Your task to perform on an android device: View the shopping cart on newegg. Search for logitech g502 on newegg, select the first entry, add it to the cart, then select checkout. Image 0: 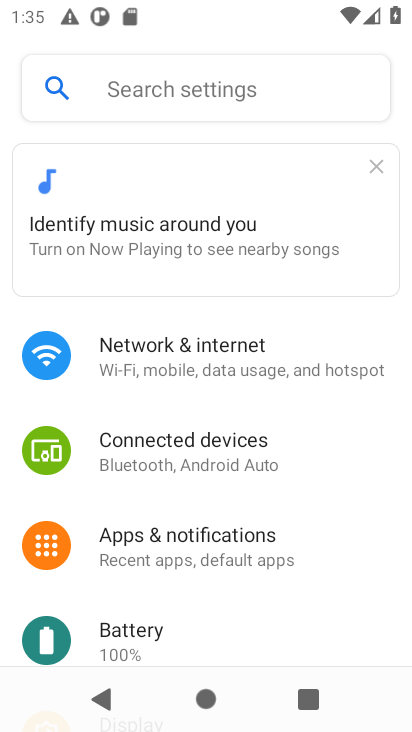
Step 0: press home button
Your task to perform on an android device: View the shopping cart on newegg. Search for logitech g502 on newegg, select the first entry, add it to the cart, then select checkout. Image 1: 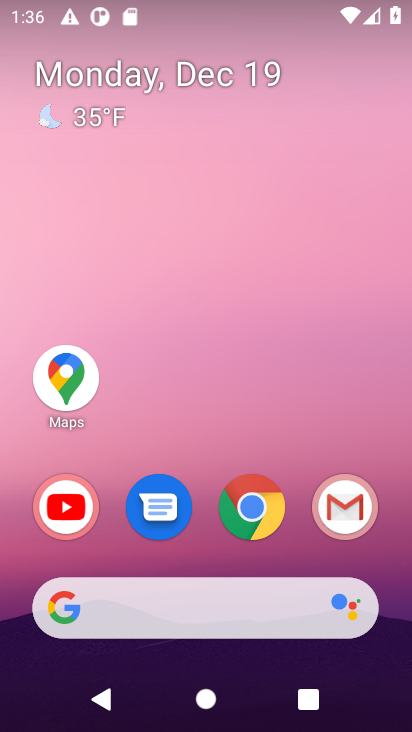
Step 1: click (253, 510)
Your task to perform on an android device: View the shopping cart on newegg. Search for logitech g502 on newegg, select the first entry, add it to the cart, then select checkout. Image 2: 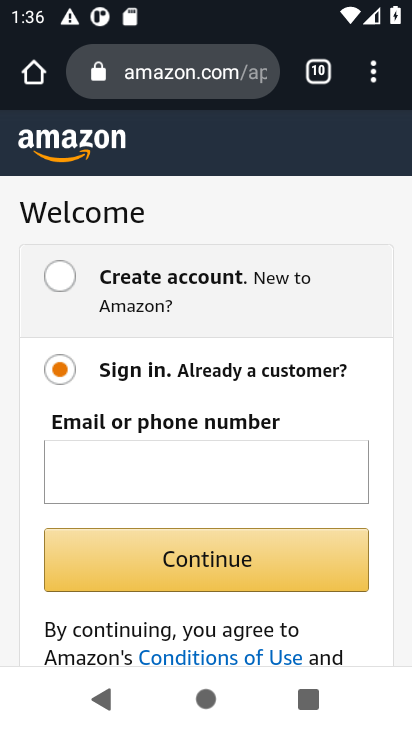
Step 2: click (149, 79)
Your task to perform on an android device: View the shopping cart on newegg. Search for logitech g502 on newegg, select the first entry, add it to the cart, then select checkout. Image 3: 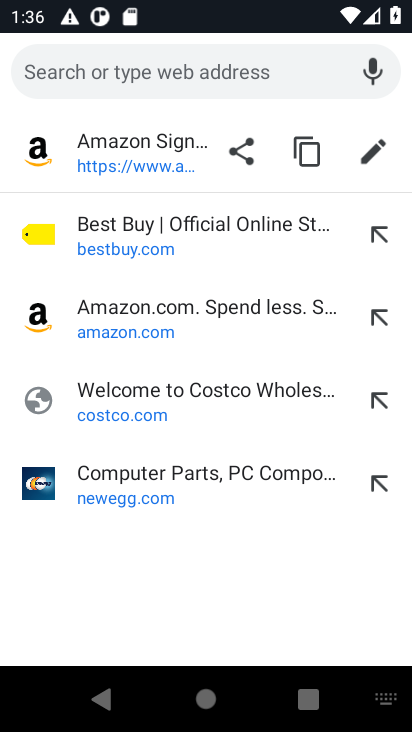
Step 3: click (124, 495)
Your task to perform on an android device: View the shopping cart on newegg. Search for logitech g502 on newegg, select the first entry, add it to the cart, then select checkout. Image 4: 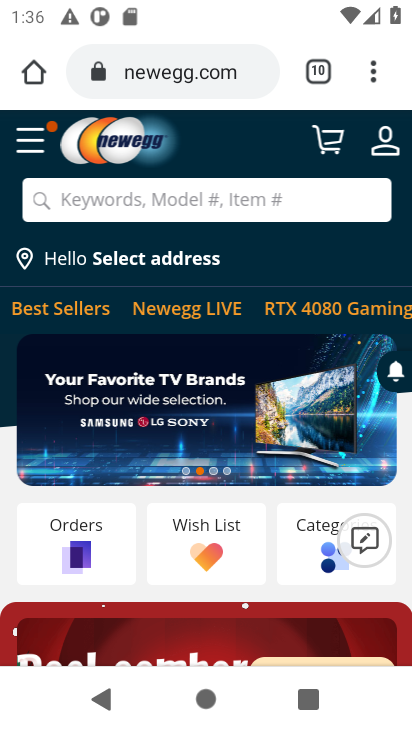
Step 4: click (333, 147)
Your task to perform on an android device: View the shopping cart on newegg. Search for logitech g502 on newegg, select the first entry, add it to the cart, then select checkout. Image 5: 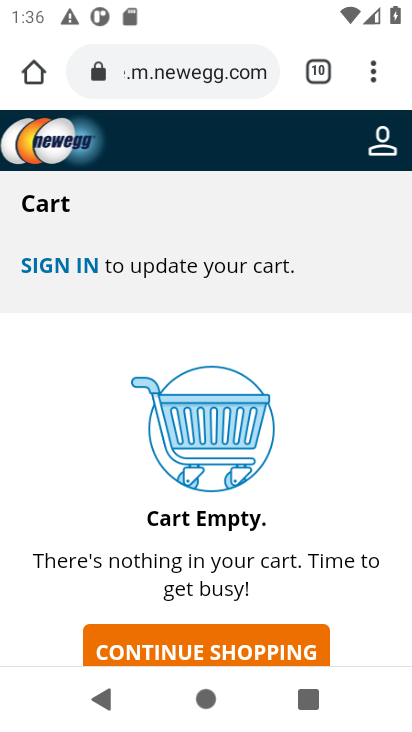
Step 5: drag from (231, 493) to (230, 380)
Your task to perform on an android device: View the shopping cart on newegg. Search for logitech g502 on newegg, select the first entry, add it to the cart, then select checkout. Image 6: 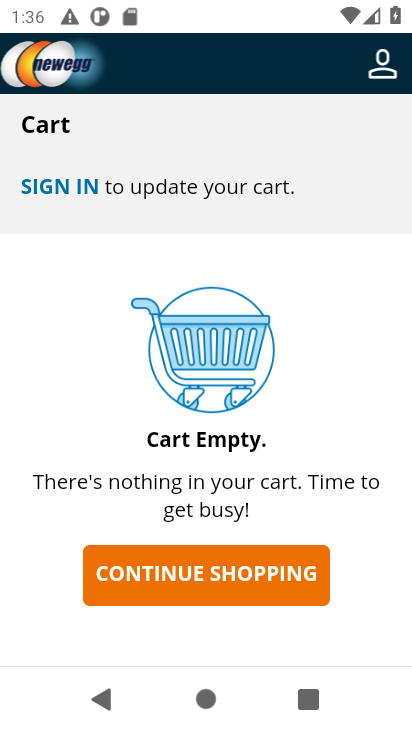
Step 6: drag from (242, 298) to (263, 489)
Your task to perform on an android device: View the shopping cart on newegg. Search for logitech g502 on newegg, select the first entry, add it to the cart, then select checkout. Image 7: 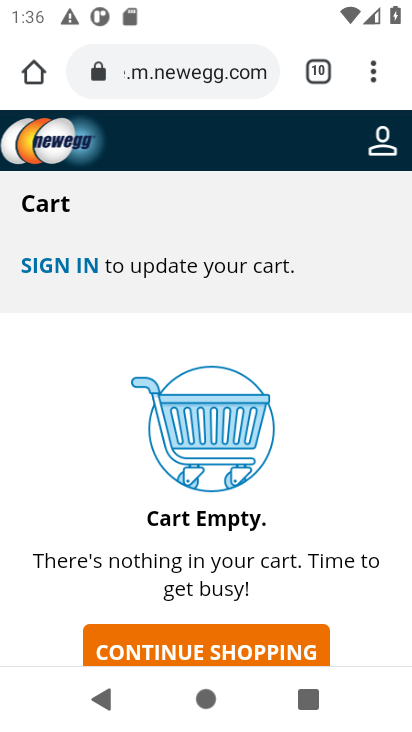
Step 7: click (213, 642)
Your task to perform on an android device: View the shopping cart on newegg. Search for logitech g502 on newegg, select the first entry, add it to the cart, then select checkout. Image 8: 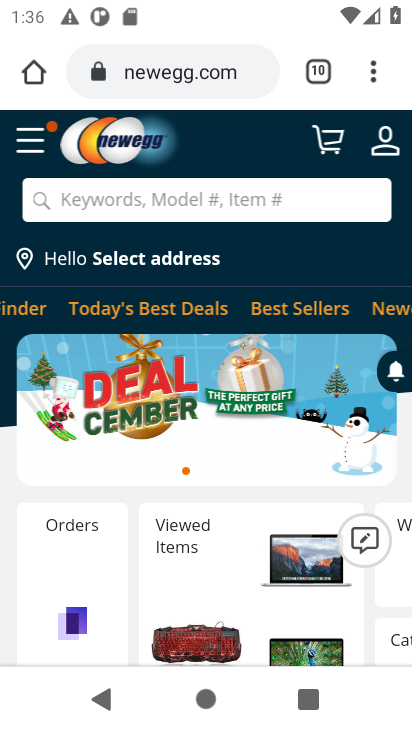
Step 8: click (122, 204)
Your task to perform on an android device: View the shopping cart on newegg. Search for logitech g502 on newegg, select the first entry, add it to the cart, then select checkout. Image 9: 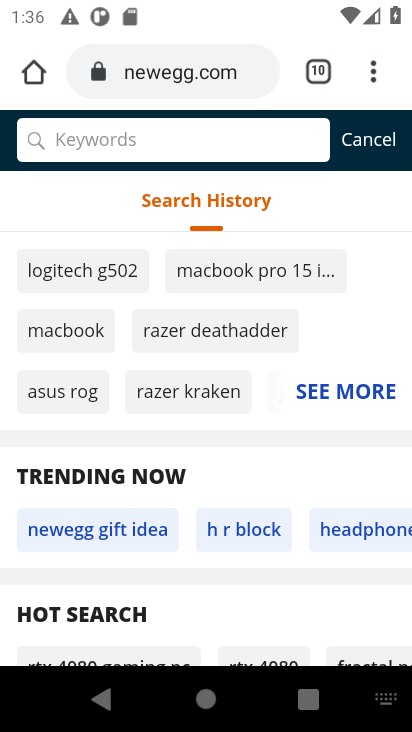
Step 9: type " logitech g502"
Your task to perform on an android device: View the shopping cart on newegg. Search for logitech g502 on newegg, select the first entry, add it to the cart, then select checkout. Image 10: 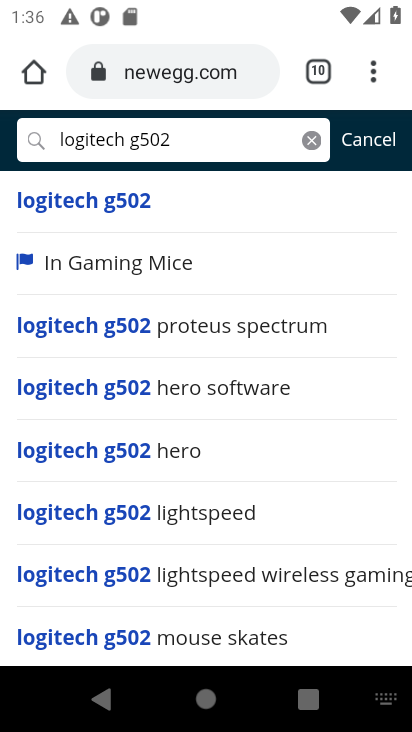
Step 10: click (106, 205)
Your task to perform on an android device: View the shopping cart on newegg. Search for logitech g502 on newegg, select the first entry, add it to the cart, then select checkout. Image 11: 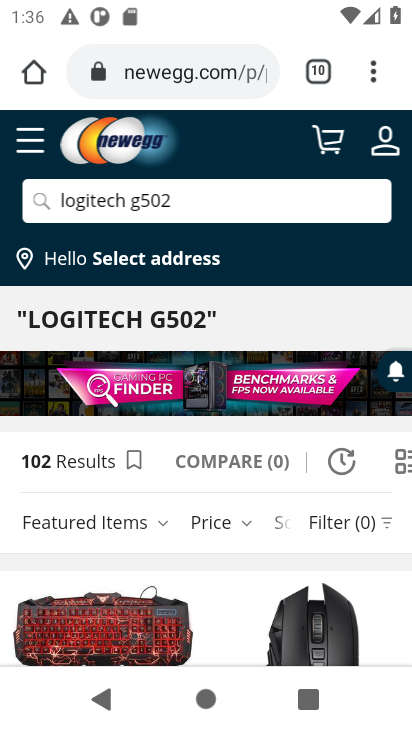
Step 11: drag from (202, 500) to (209, 232)
Your task to perform on an android device: View the shopping cart on newegg. Search for logitech g502 on newegg, select the first entry, add it to the cart, then select checkout. Image 12: 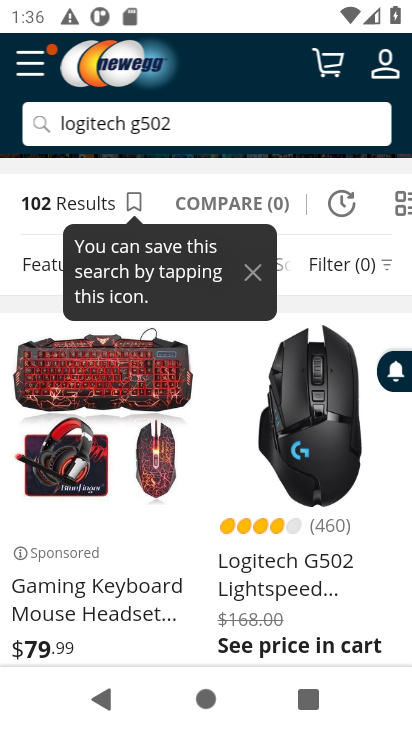
Step 12: drag from (190, 478) to (181, 268)
Your task to perform on an android device: View the shopping cart on newegg. Search for logitech g502 on newegg, select the first entry, add it to the cart, then select checkout. Image 13: 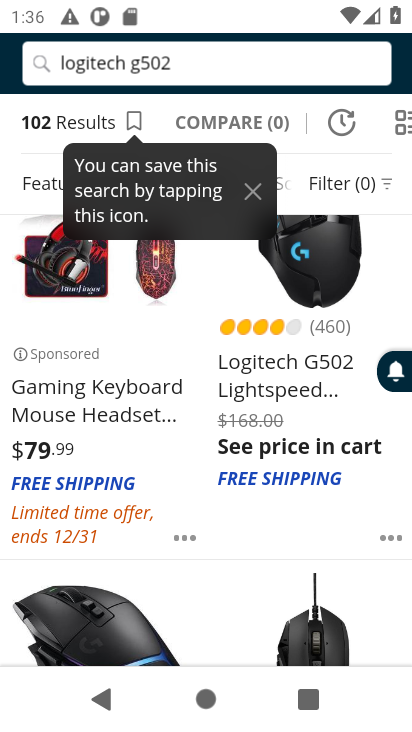
Step 13: click (94, 402)
Your task to perform on an android device: View the shopping cart on newegg. Search for logitech g502 on newegg, select the first entry, add it to the cart, then select checkout. Image 14: 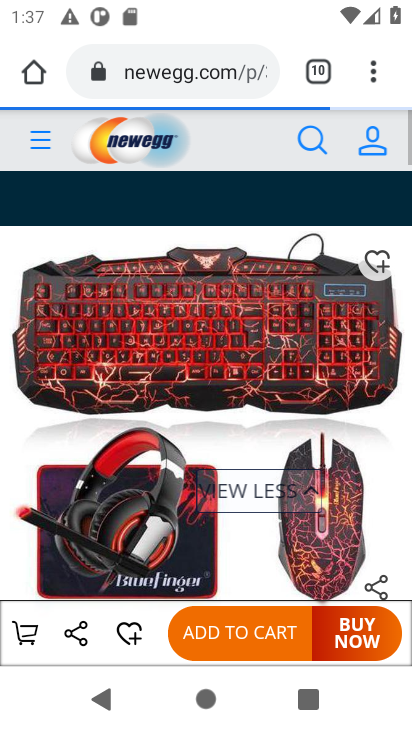
Step 14: task complete